Your task to perform on an android device: Go to Google maps Image 0: 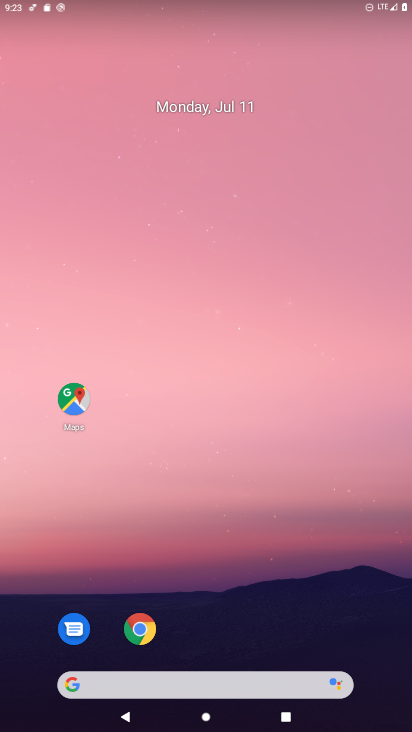
Step 0: click (71, 382)
Your task to perform on an android device: Go to Google maps Image 1: 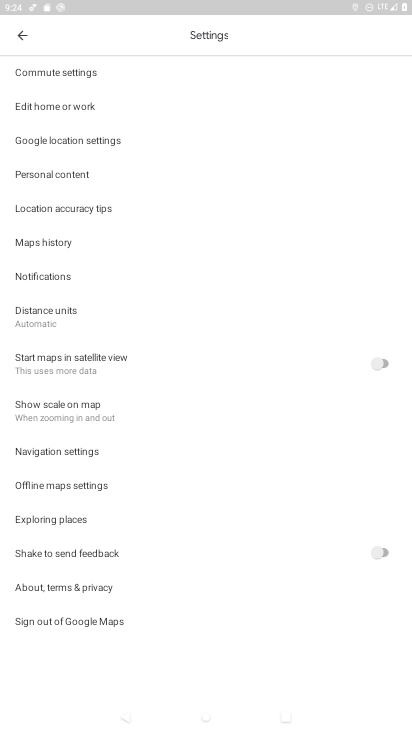
Step 1: click (25, 34)
Your task to perform on an android device: Go to Google maps Image 2: 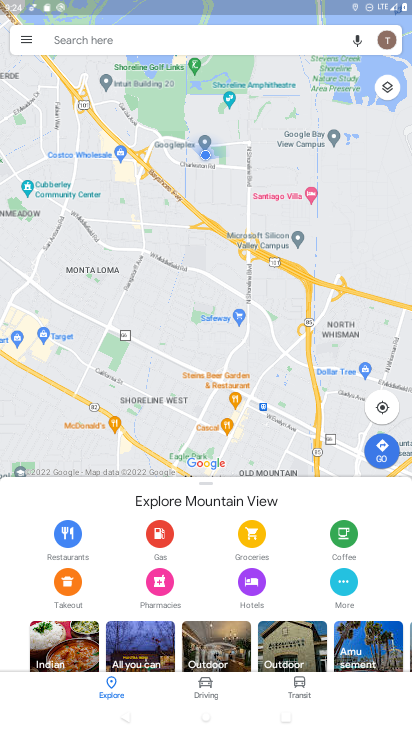
Step 2: task complete